Your task to perform on an android device: Open Youtube and go to the subscriptions tab Image 0: 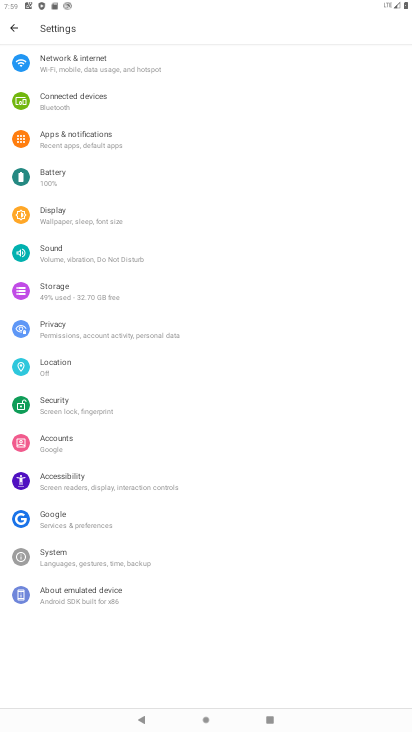
Step 0: press home button
Your task to perform on an android device: Open Youtube and go to the subscriptions tab Image 1: 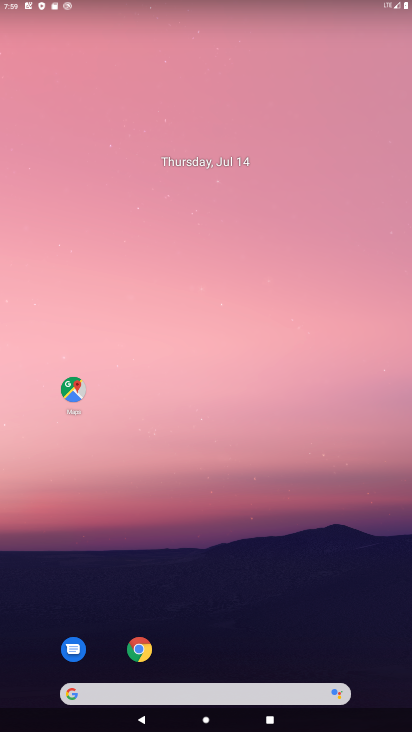
Step 1: drag from (226, 679) to (296, 138)
Your task to perform on an android device: Open Youtube and go to the subscriptions tab Image 2: 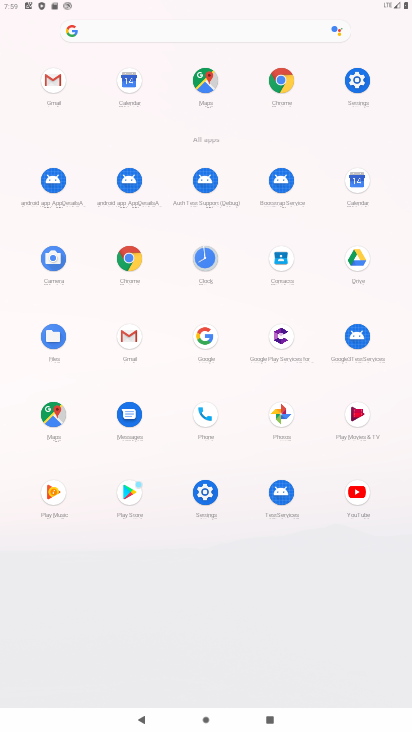
Step 2: click (352, 495)
Your task to perform on an android device: Open Youtube and go to the subscriptions tab Image 3: 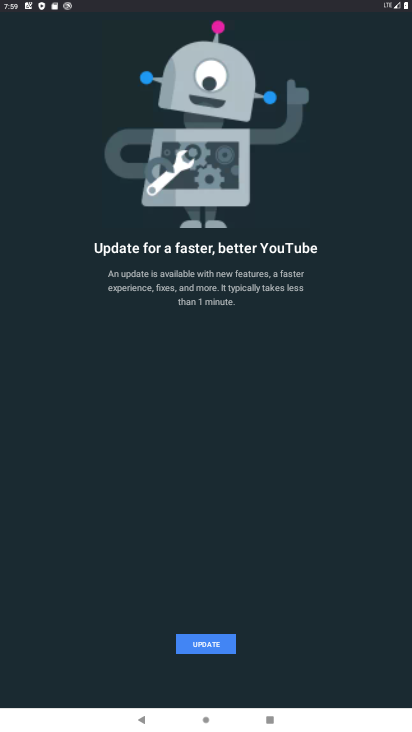
Step 3: click (226, 642)
Your task to perform on an android device: Open Youtube and go to the subscriptions tab Image 4: 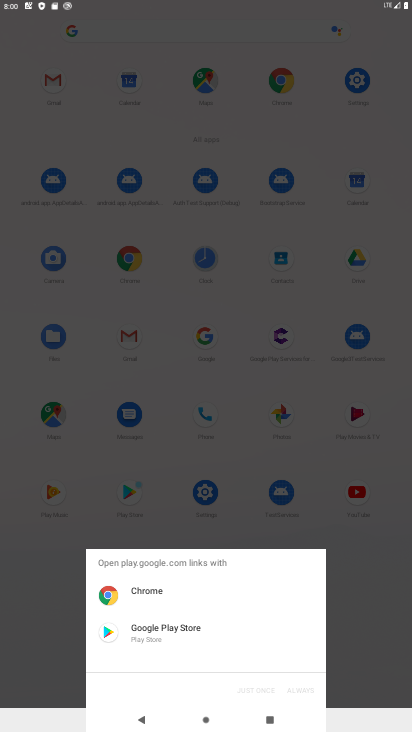
Step 4: click (222, 637)
Your task to perform on an android device: Open Youtube and go to the subscriptions tab Image 5: 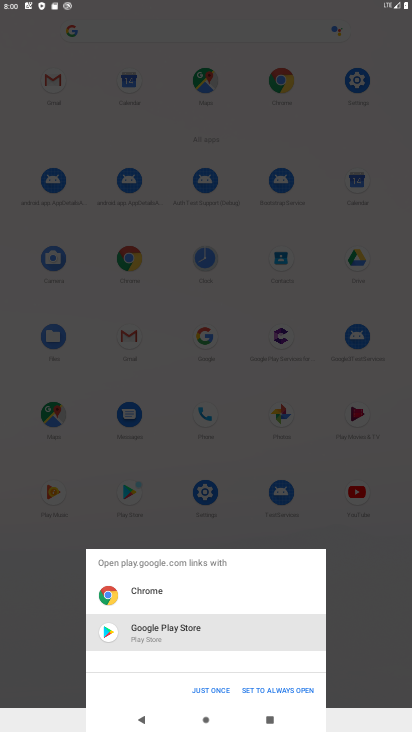
Step 5: click (226, 685)
Your task to perform on an android device: Open Youtube and go to the subscriptions tab Image 6: 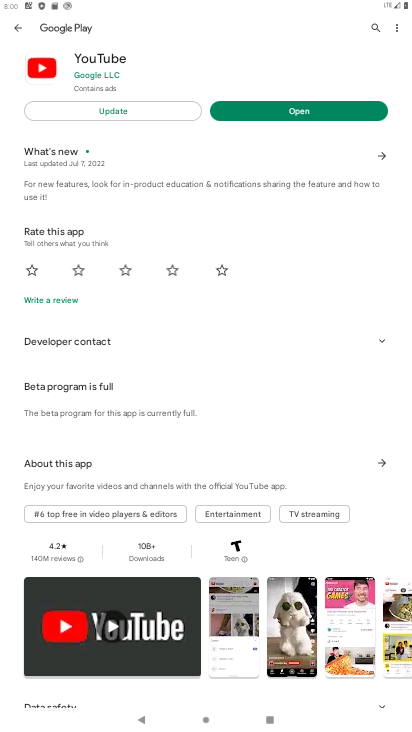
Step 6: click (152, 113)
Your task to perform on an android device: Open Youtube and go to the subscriptions tab Image 7: 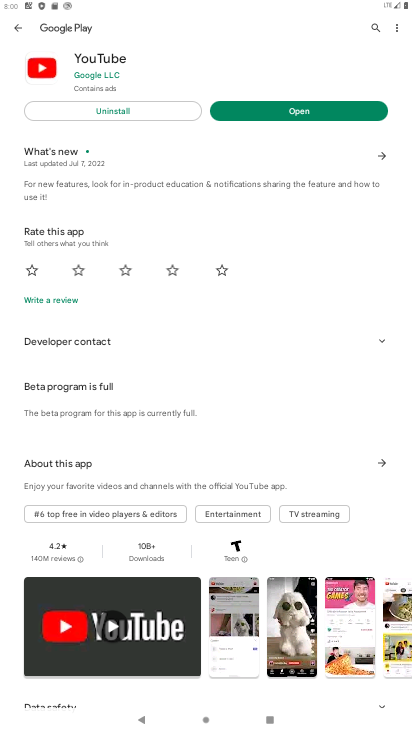
Step 7: click (246, 109)
Your task to perform on an android device: Open Youtube and go to the subscriptions tab Image 8: 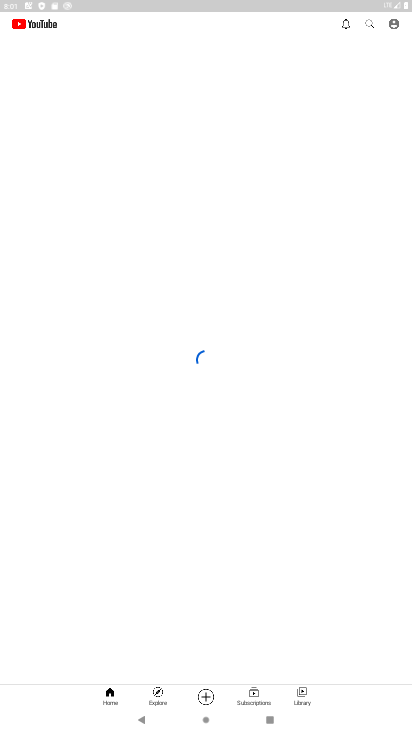
Step 8: click (256, 693)
Your task to perform on an android device: Open Youtube and go to the subscriptions tab Image 9: 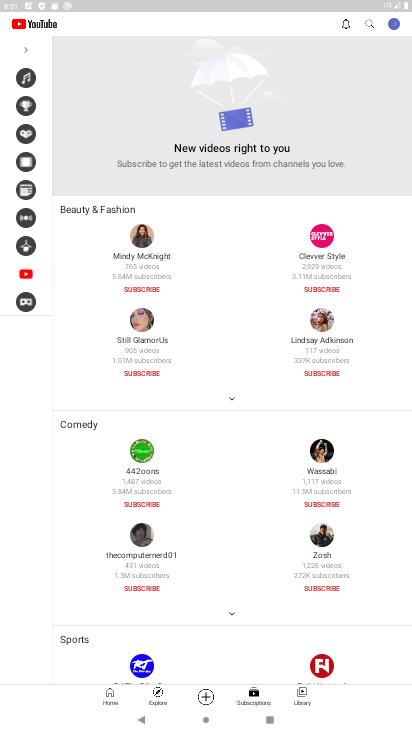
Step 9: task complete